Your task to perform on an android device: Search for macbook on target, select the first entry, and add it to the cart. Image 0: 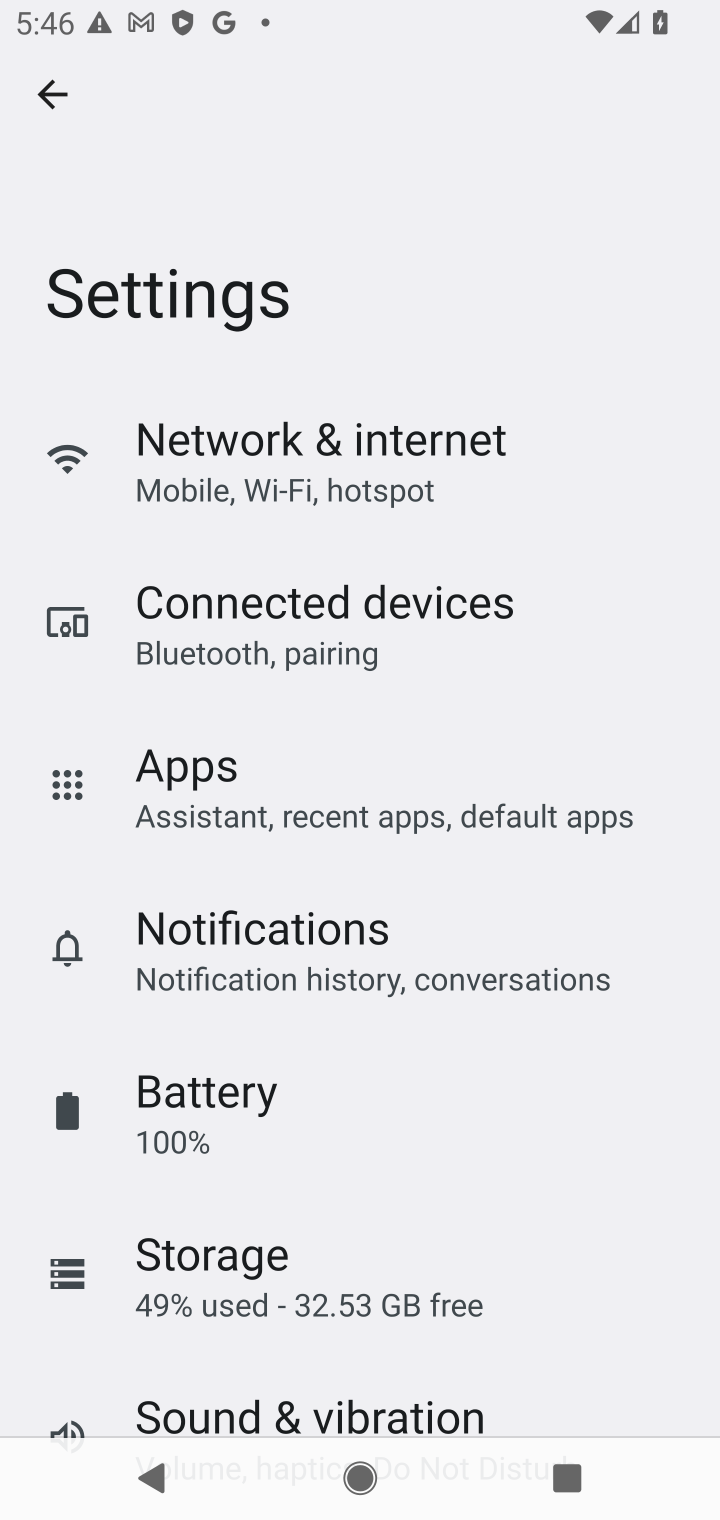
Step 0: press home button
Your task to perform on an android device: Search for macbook on target, select the first entry, and add it to the cart. Image 1: 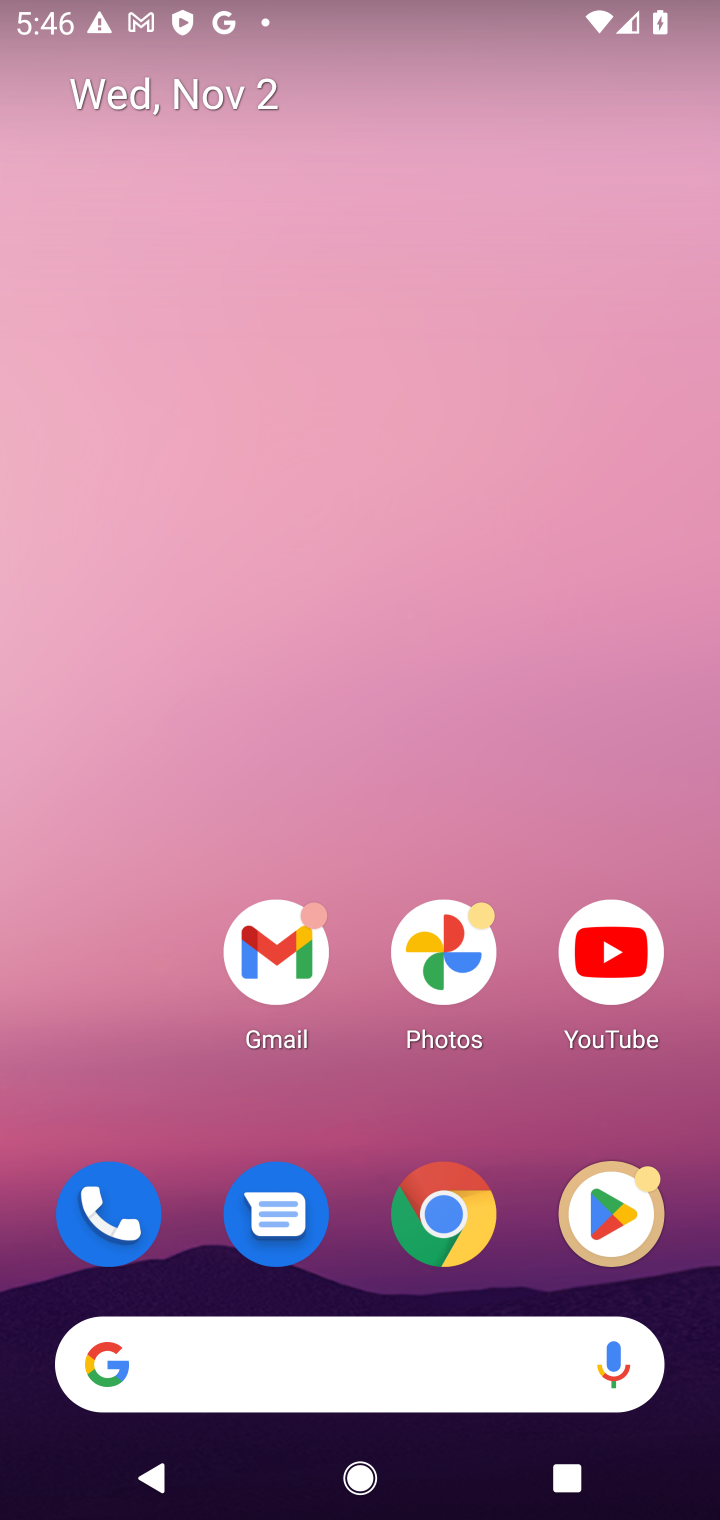
Step 1: click (448, 1219)
Your task to perform on an android device: Search for macbook on target, select the first entry, and add it to the cart. Image 2: 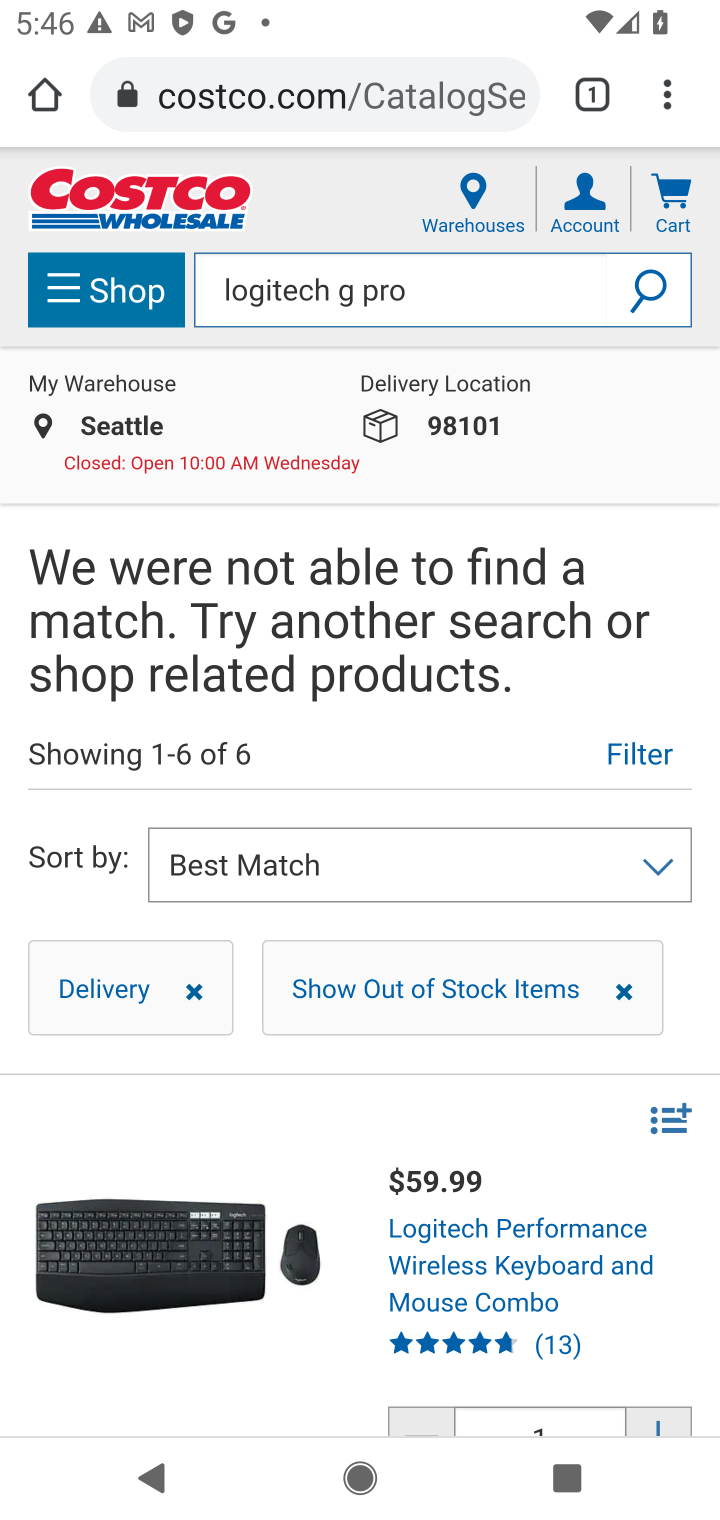
Step 2: click (336, 97)
Your task to perform on an android device: Search for macbook on target, select the first entry, and add it to the cart. Image 3: 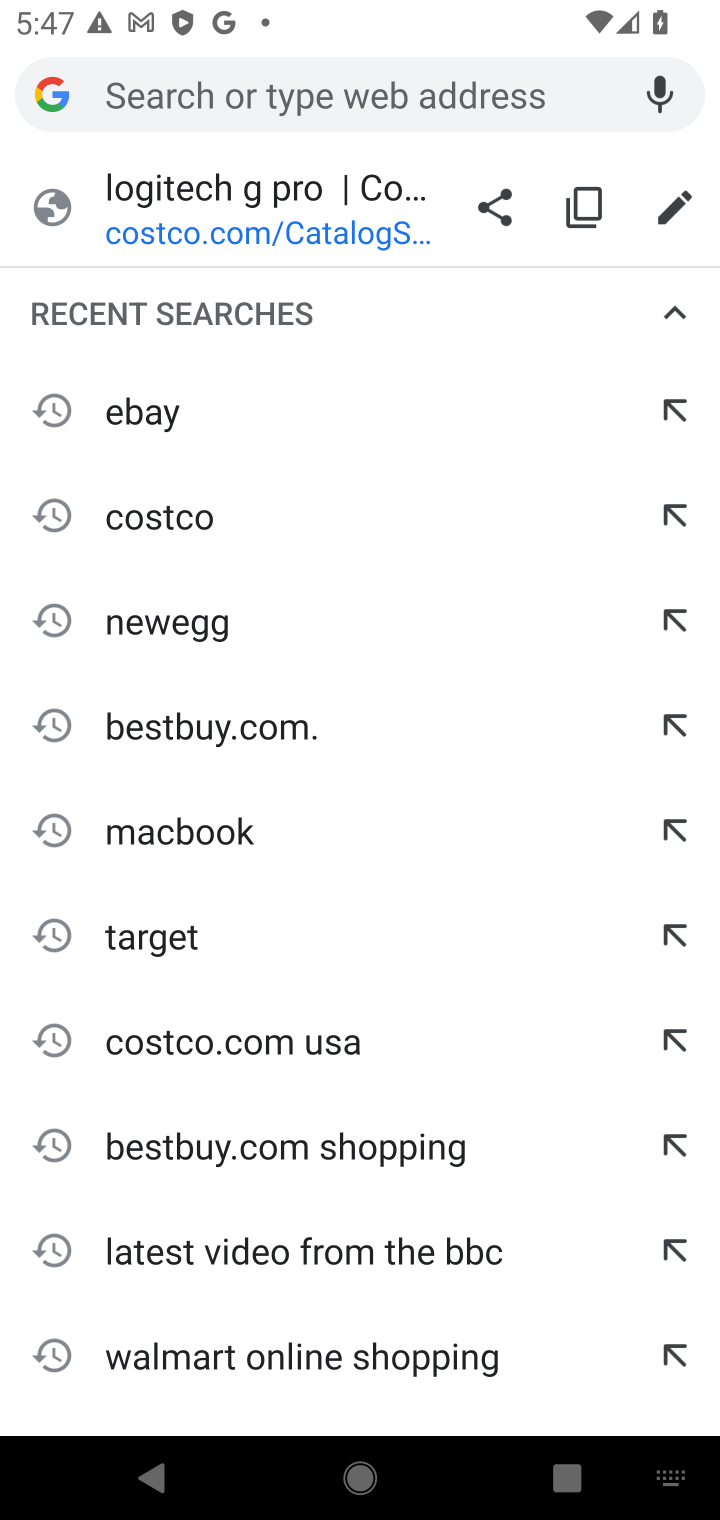
Step 3: type "target"
Your task to perform on an android device: Search for macbook on target, select the first entry, and add it to the cart. Image 4: 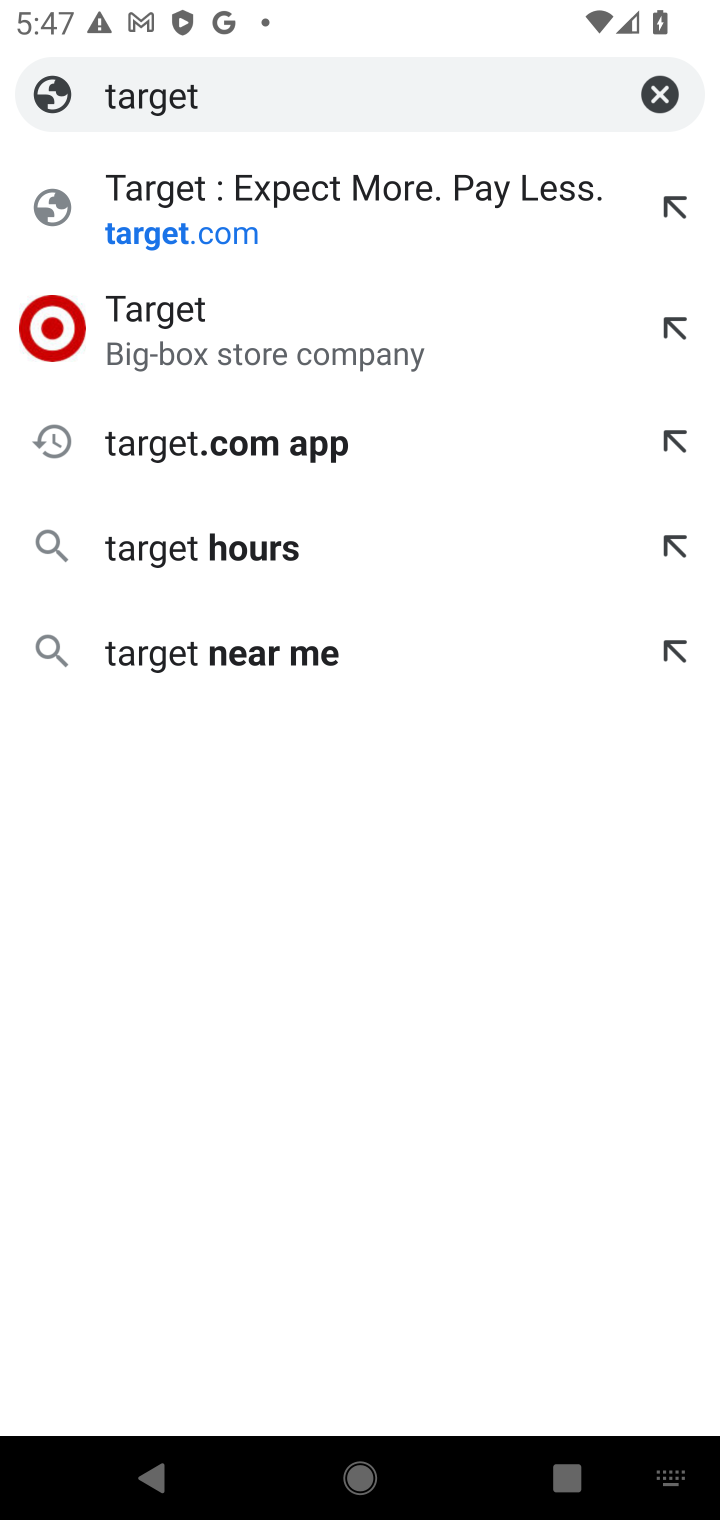
Step 4: click (172, 340)
Your task to perform on an android device: Search for macbook on target, select the first entry, and add it to the cart. Image 5: 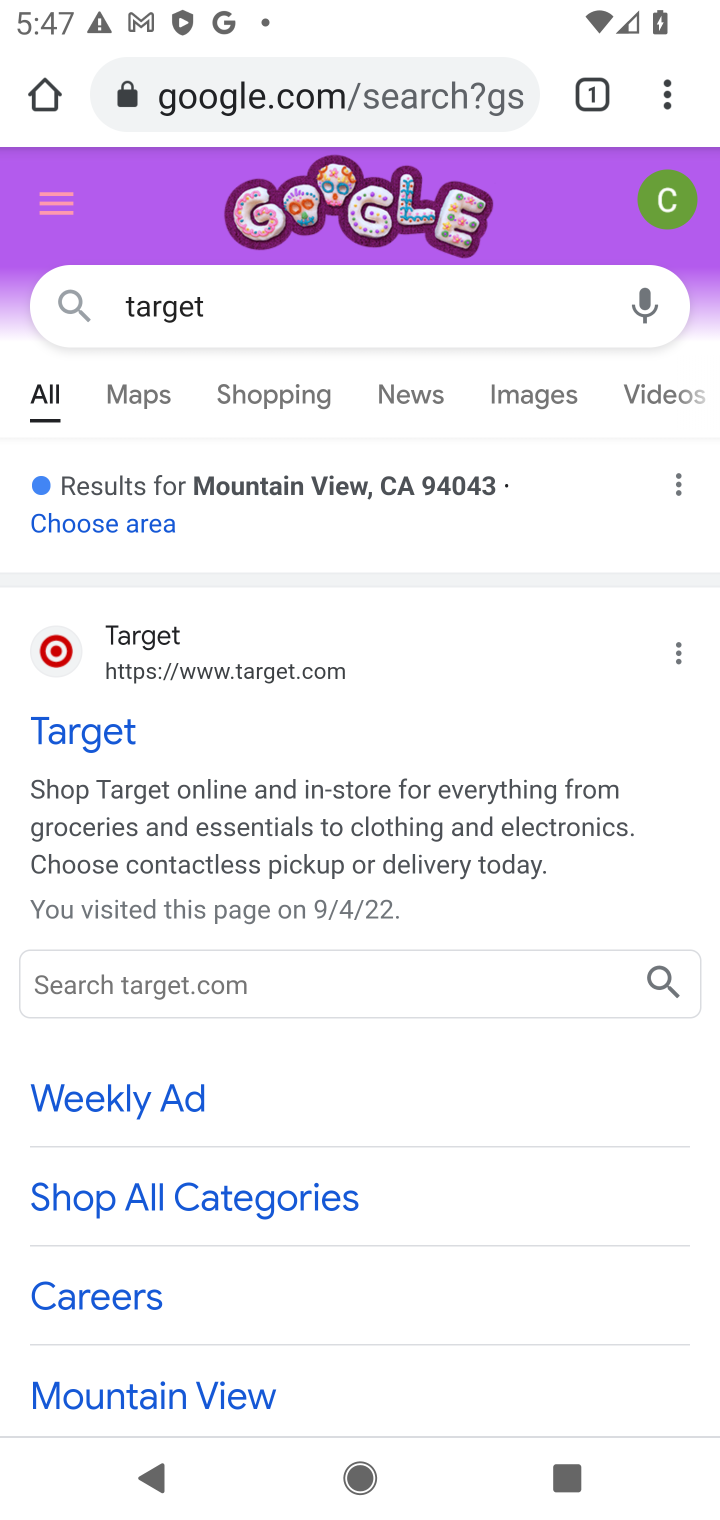
Step 5: click (157, 739)
Your task to perform on an android device: Search for macbook on target, select the first entry, and add it to the cart. Image 6: 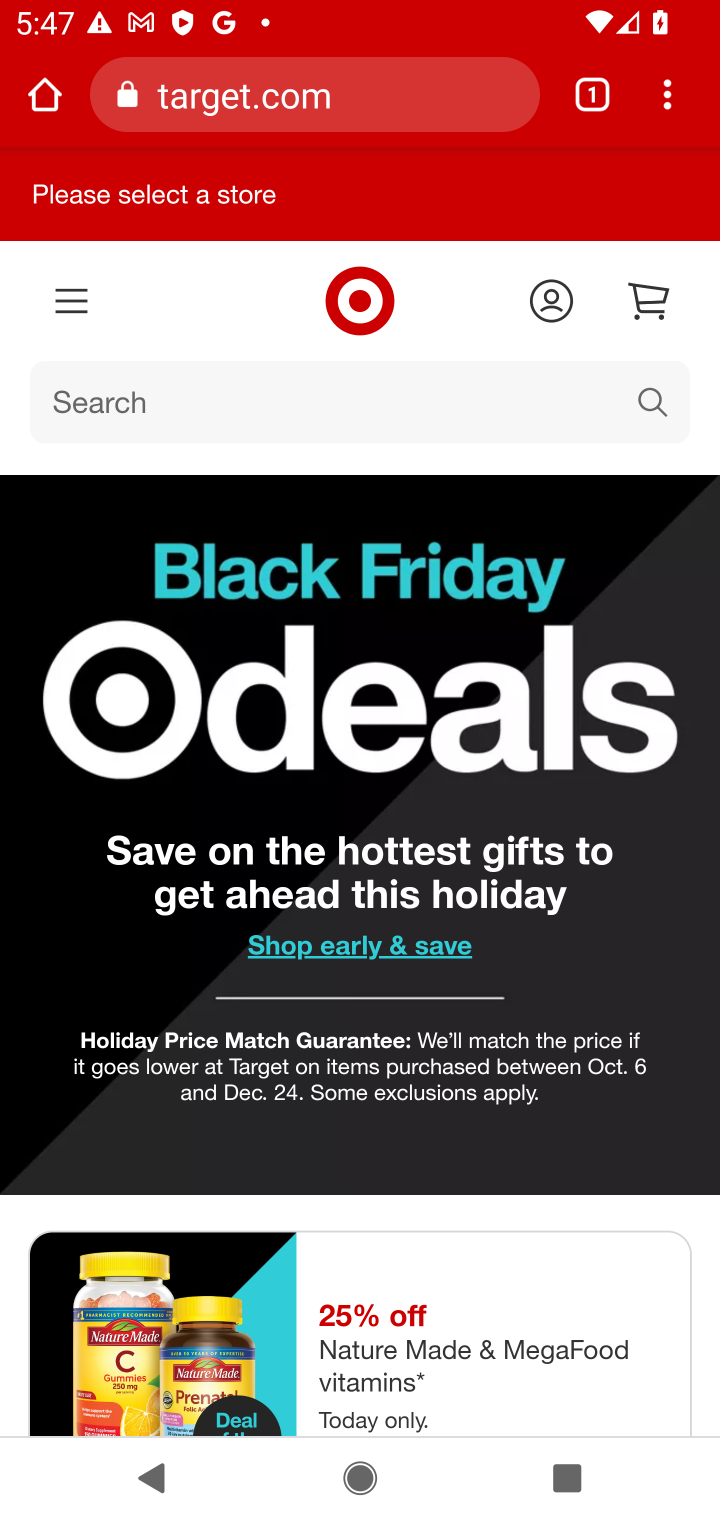
Step 6: click (393, 425)
Your task to perform on an android device: Search for macbook on target, select the first entry, and add it to the cart. Image 7: 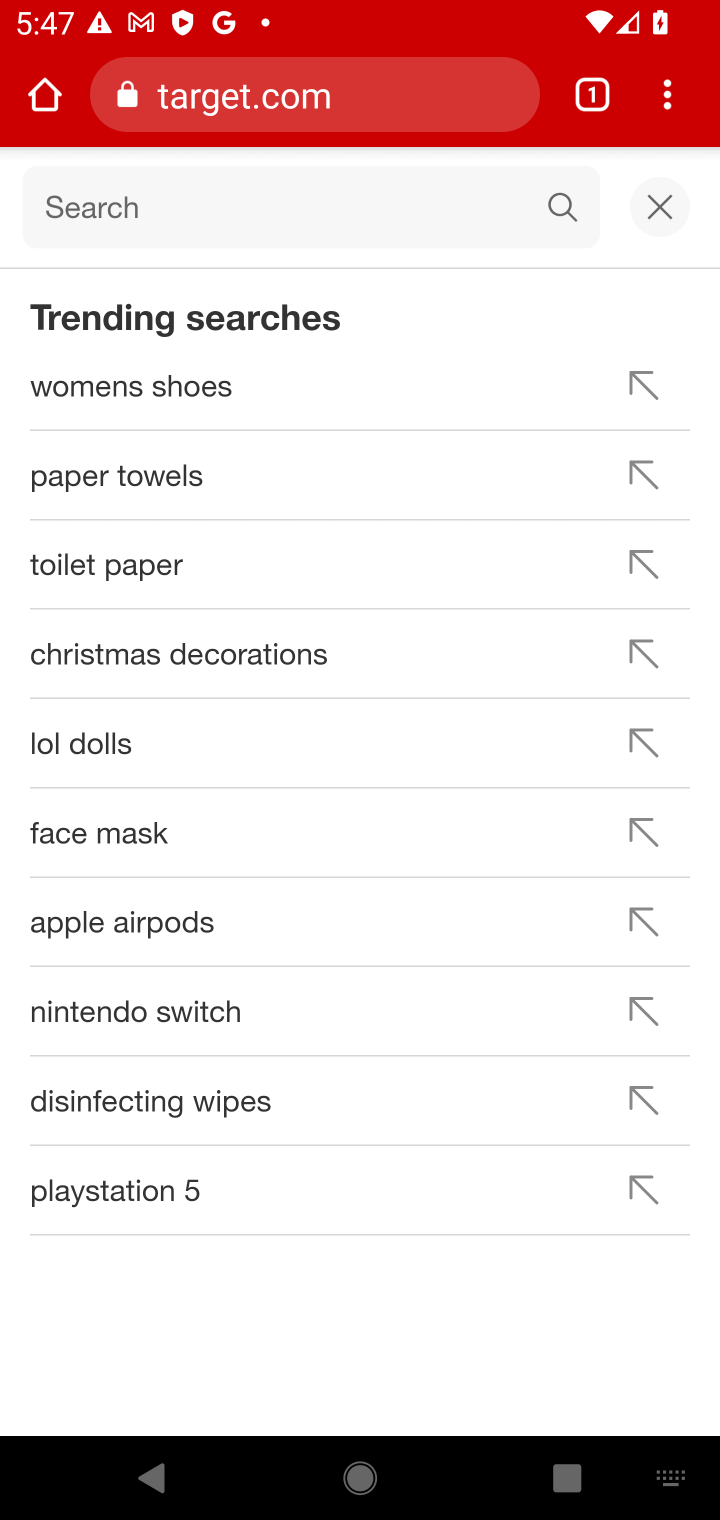
Step 7: type "macbook"
Your task to perform on an android device: Search for macbook on target, select the first entry, and add it to the cart. Image 8: 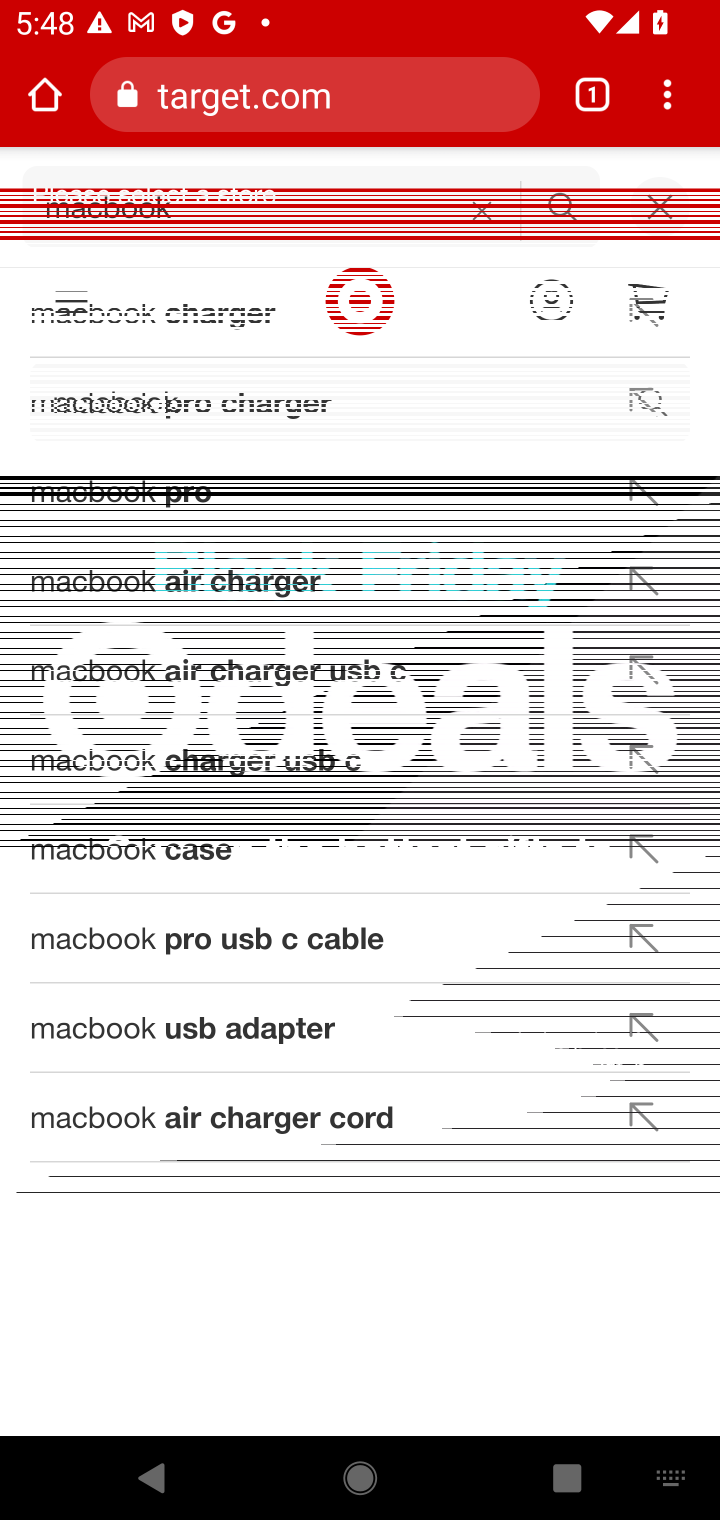
Step 8: click (558, 201)
Your task to perform on an android device: Search for macbook on target, select the first entry, and add it to the cart. Image 9: 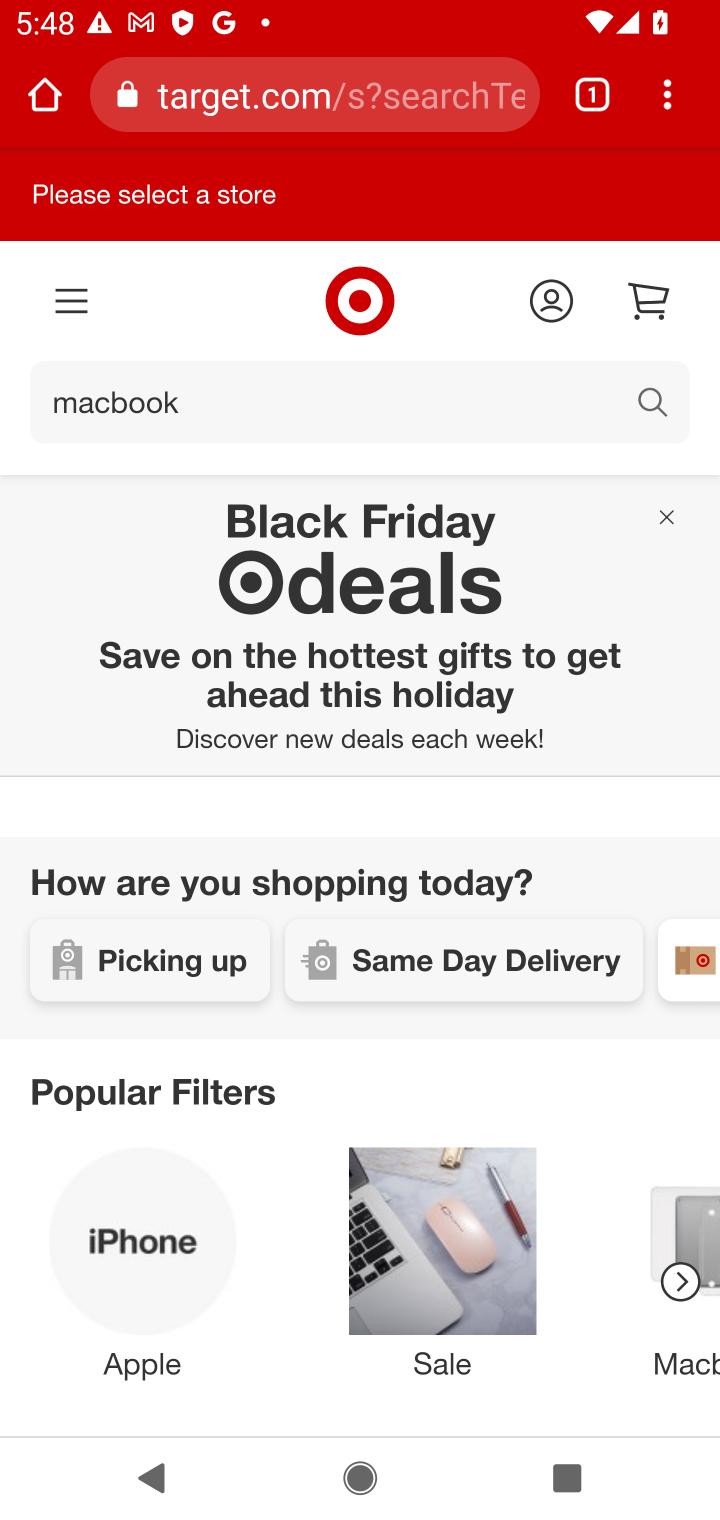
Step 9: drag from (425, 1093) to (462, 516)
Your task to perform on an android device: Search for macbook on target, select the first entry, and add it to the cart. Image 10: 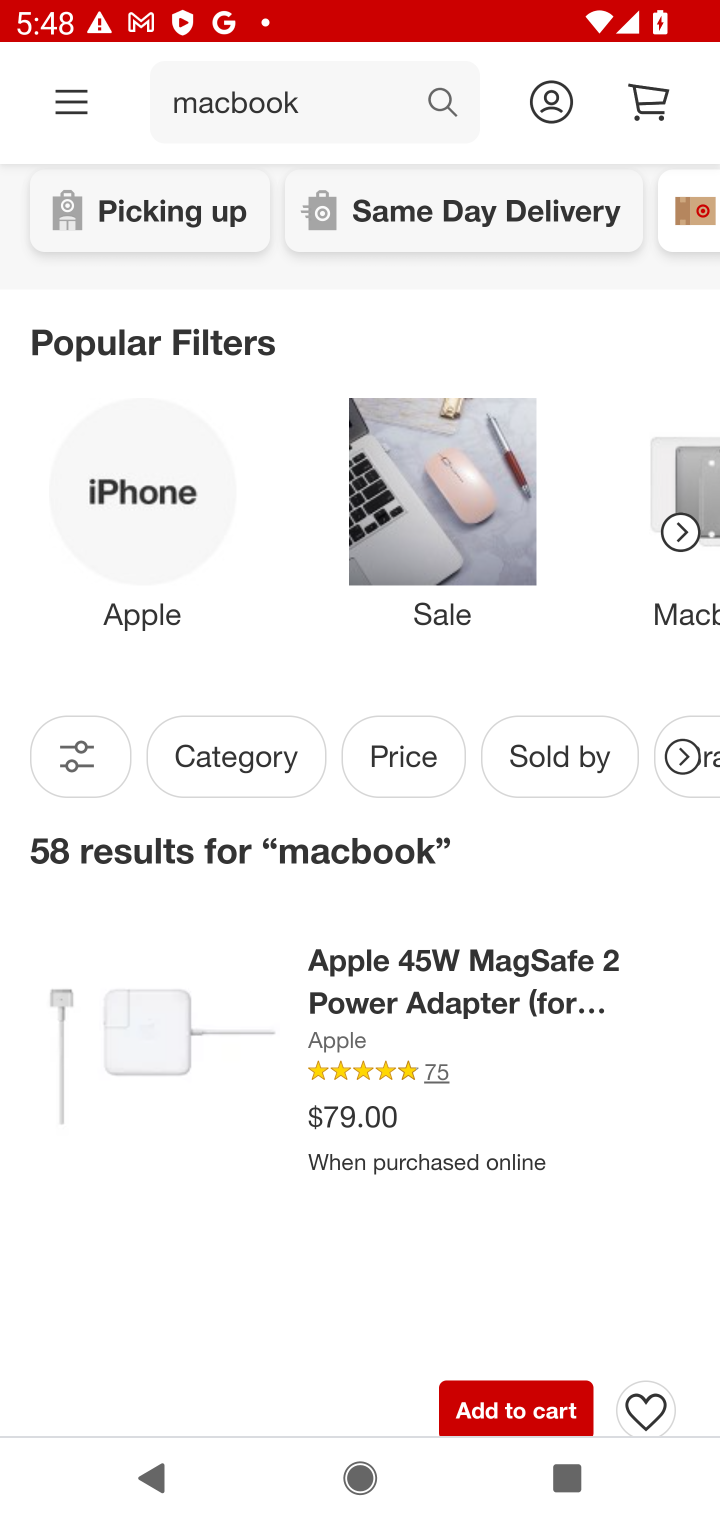
Step 10: drag from (521, 1067) to (551, 824)
Your task to perform on an android device: Search for macbook on target, select the first entry, and add it to the cart. Image 11: 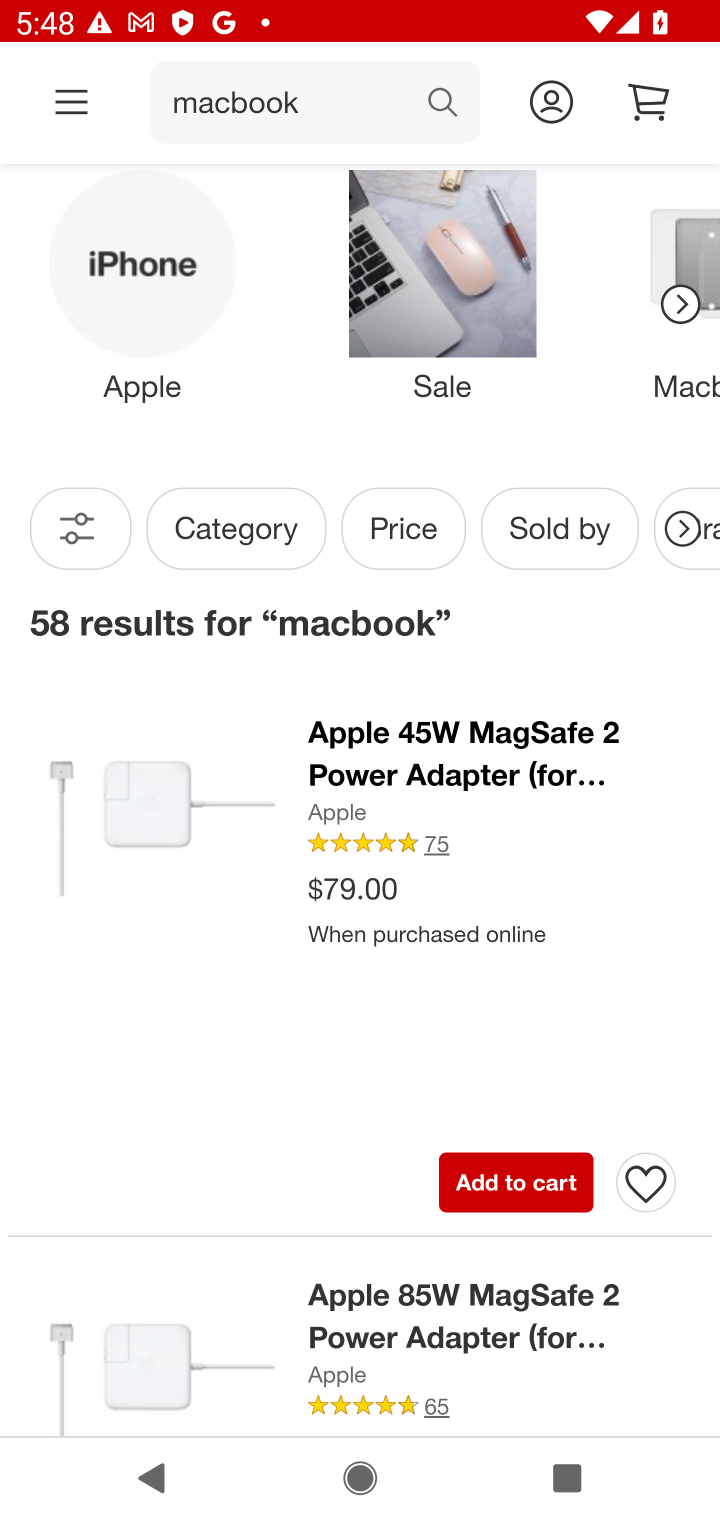
Step 11: click (501, 779)
Your task to perform on an android device: Search for macbook on target, select the first entry, and add it to the cart. Image 12: 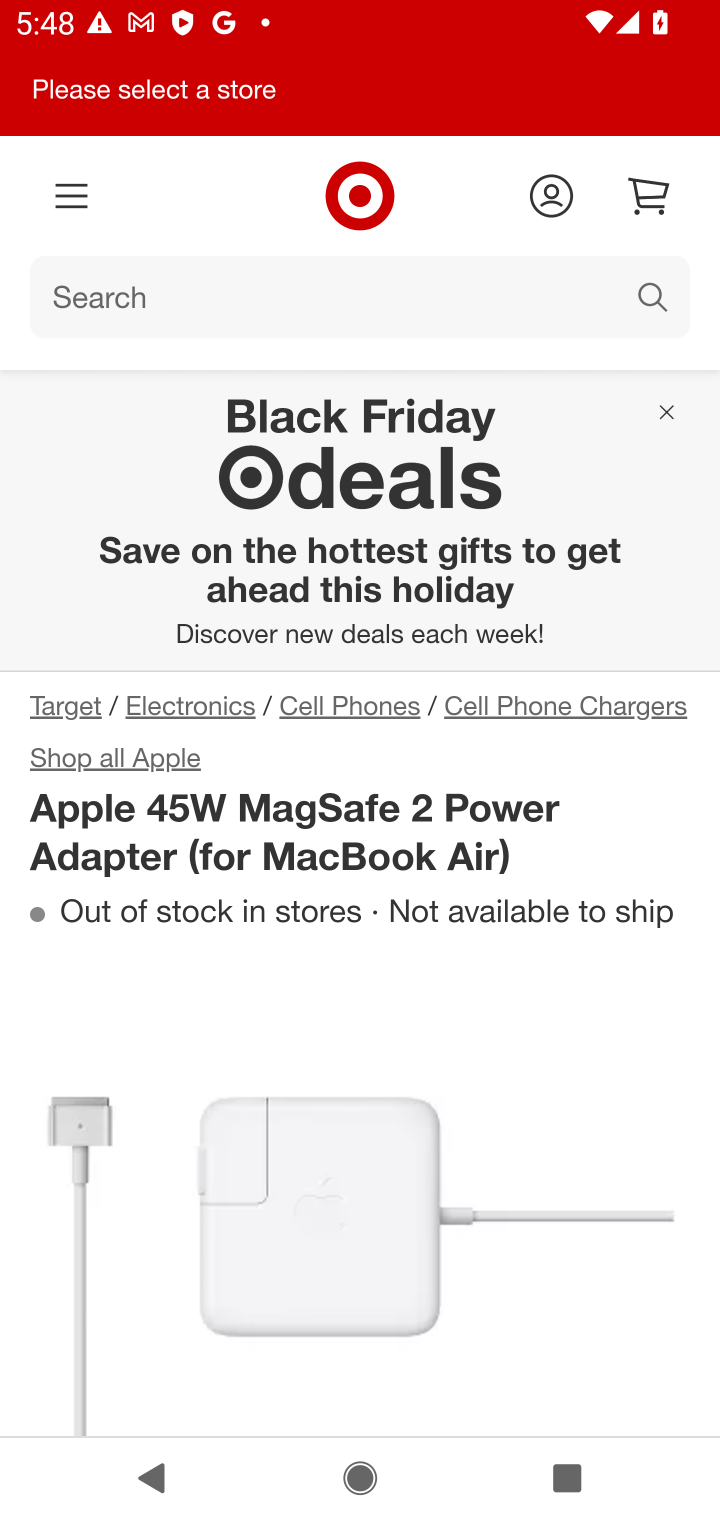
Step 12: drag from (545, 1065) to (575, 635)
Your task to perform on an android device: Search for macbook on target, select the first entry, and add it to the cart. Image 13: 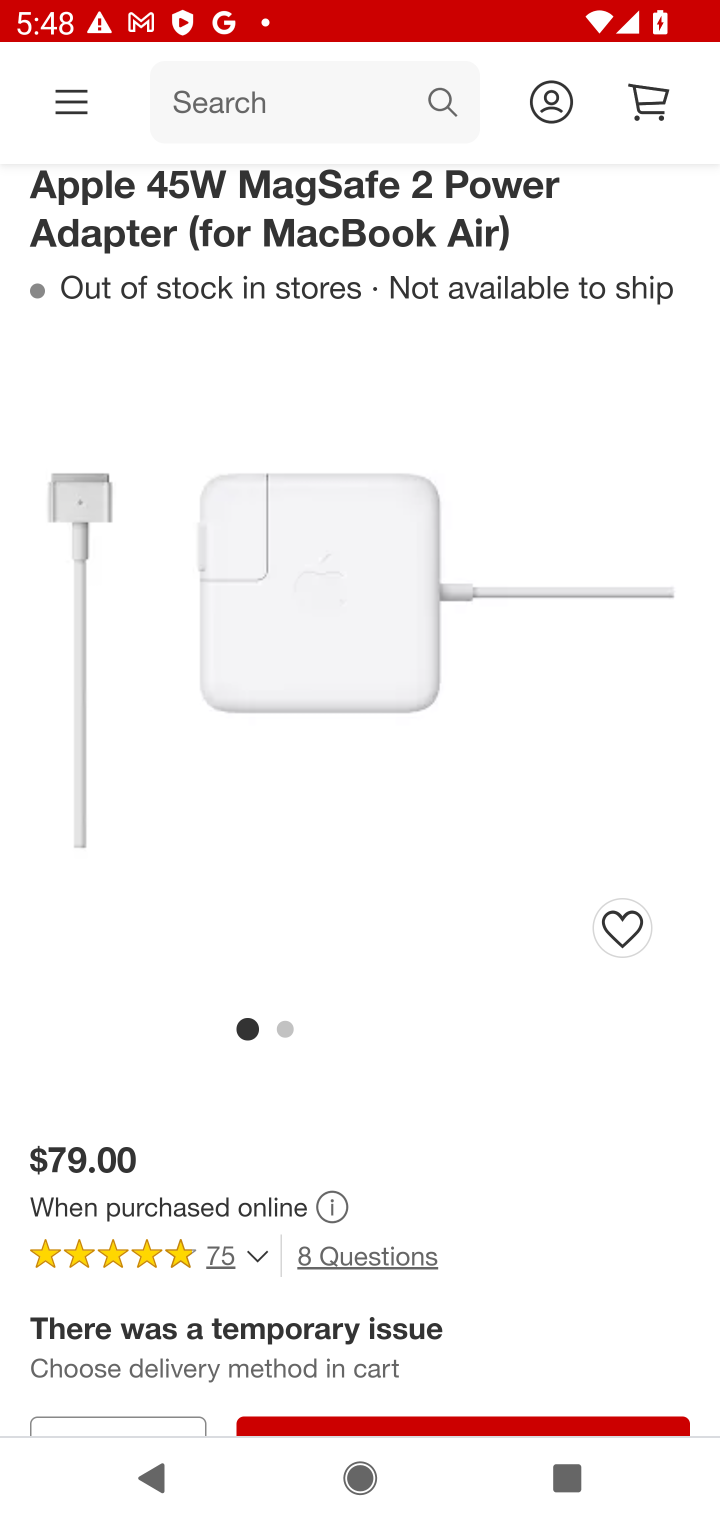
Step 13: drag from (462, 1113) to (479, 604)
Your task to perform on an android device: Search for macbook on target, select the first entry, and add it to the cart. Image 14: 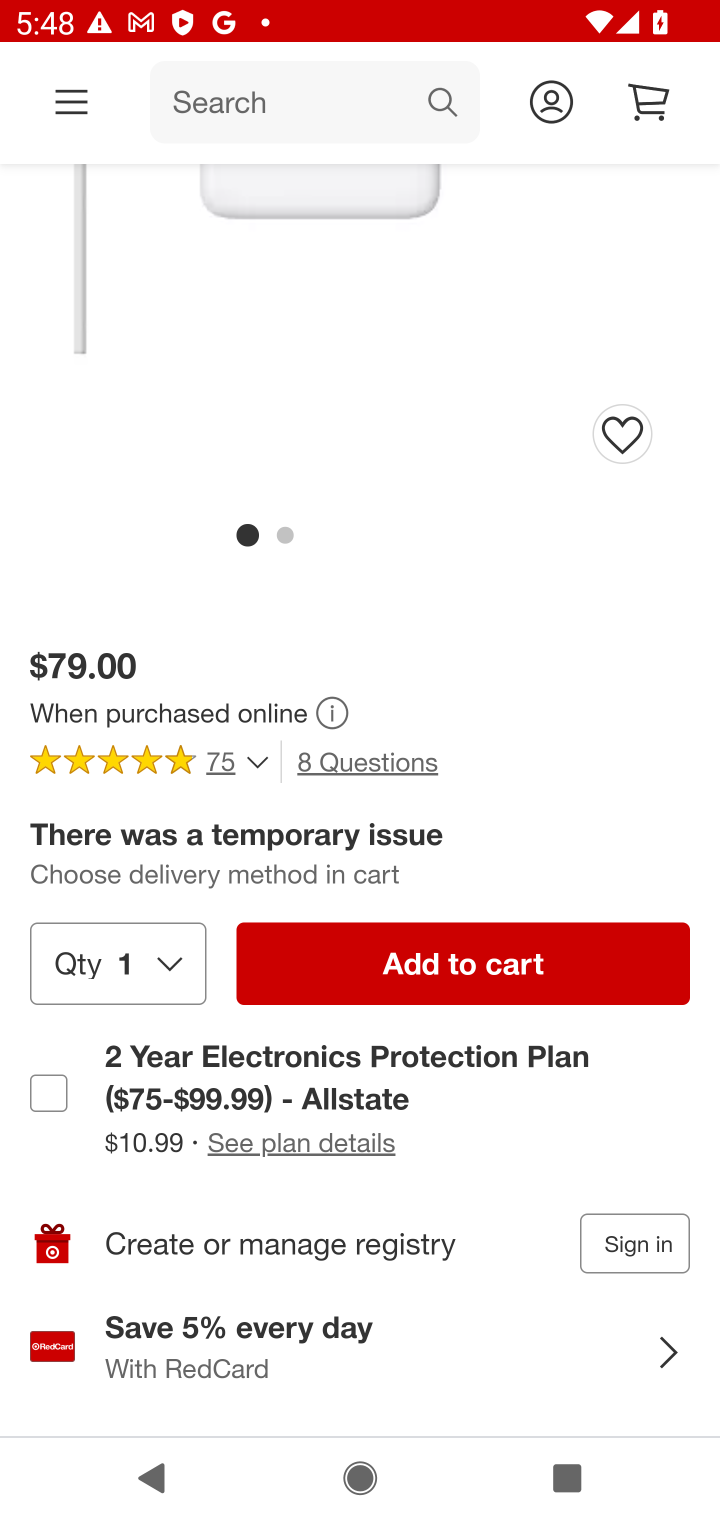
Step 14: click (463, 963)
Your task to perform on an android device: Search for macbook on target, select the first entry, and add it to the cart. Image 15: 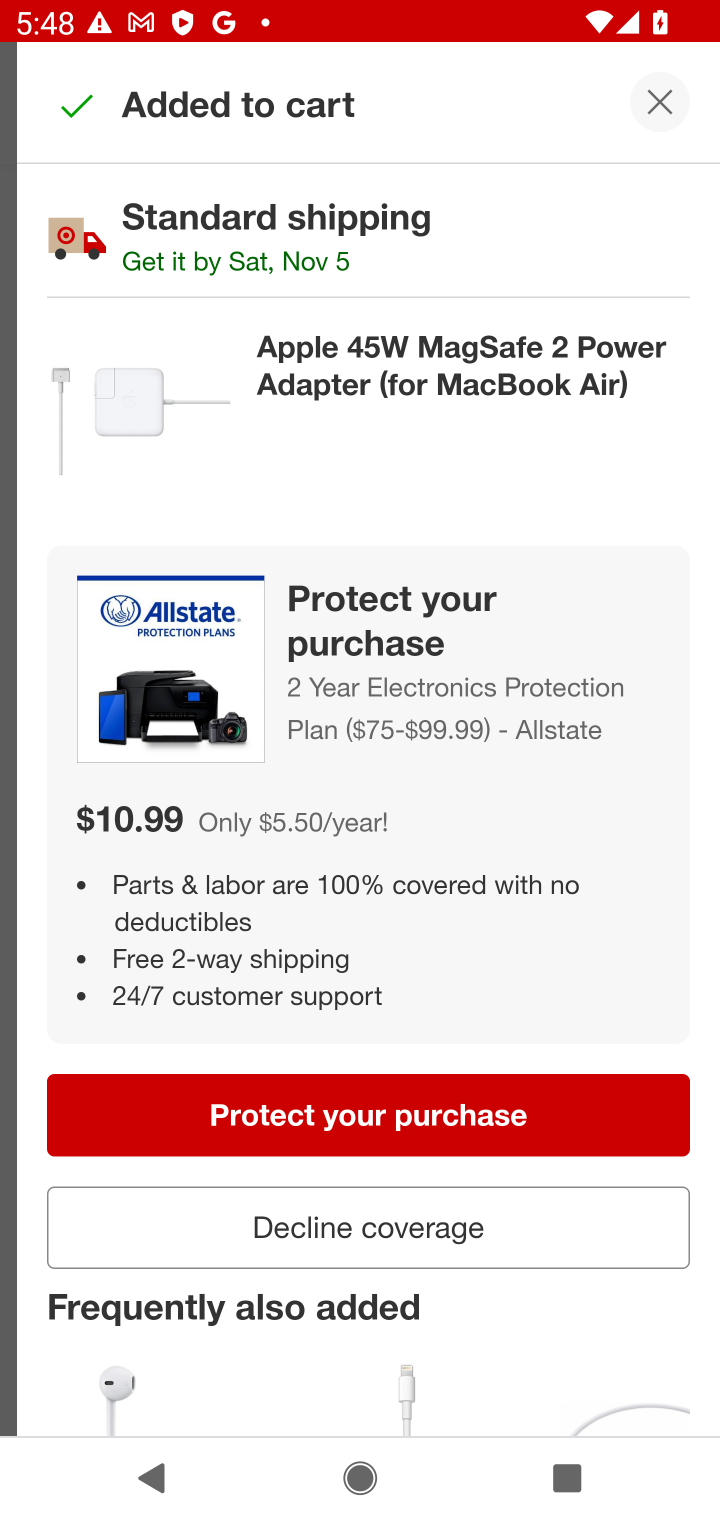
Step 15: click (396, 1233)
Your task to perform on an android device: Search for macbook on target, select the first entry, and add it to the cart. Image 16: 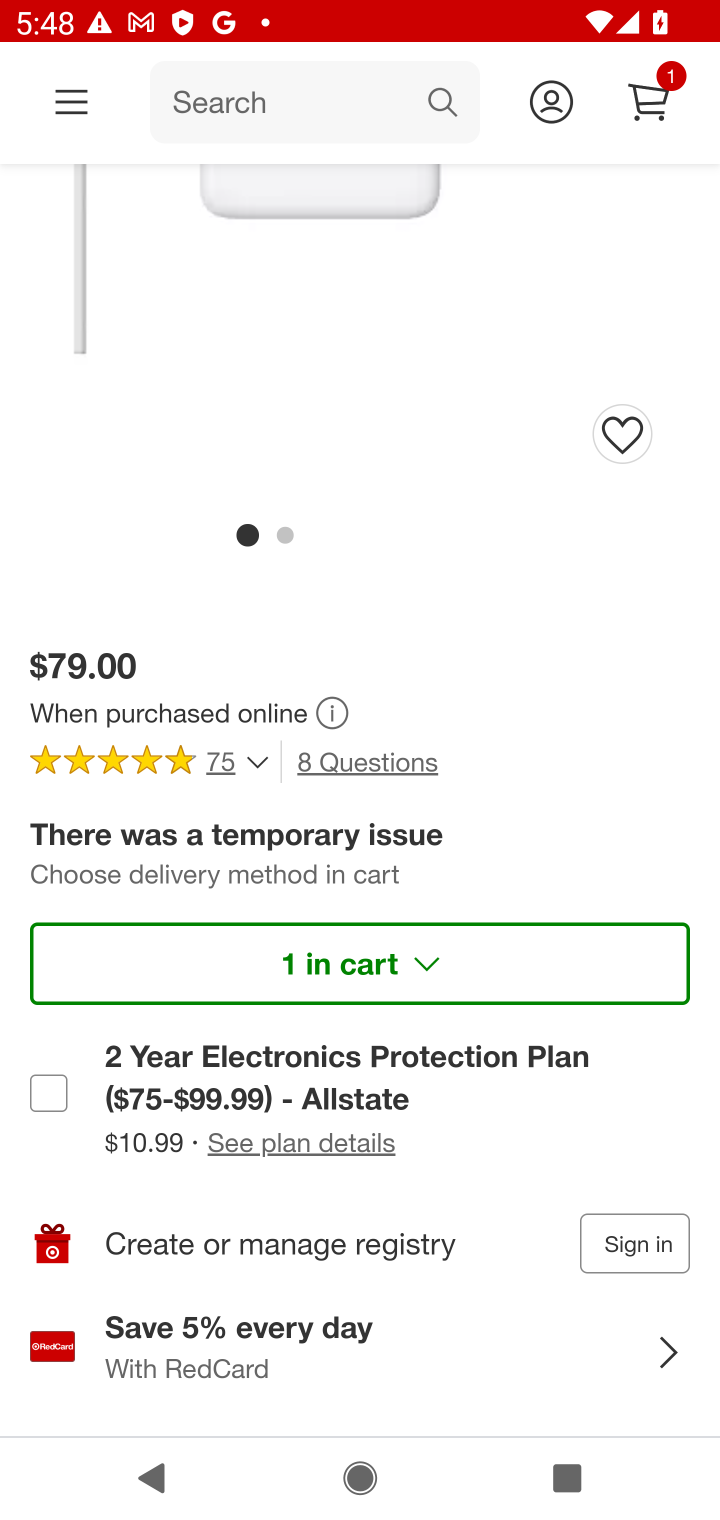
Step 16: click (660, 95)
Your task to perform on an android device: Search for macbook on target, select the first entry, and add it to the cart. Image 17: 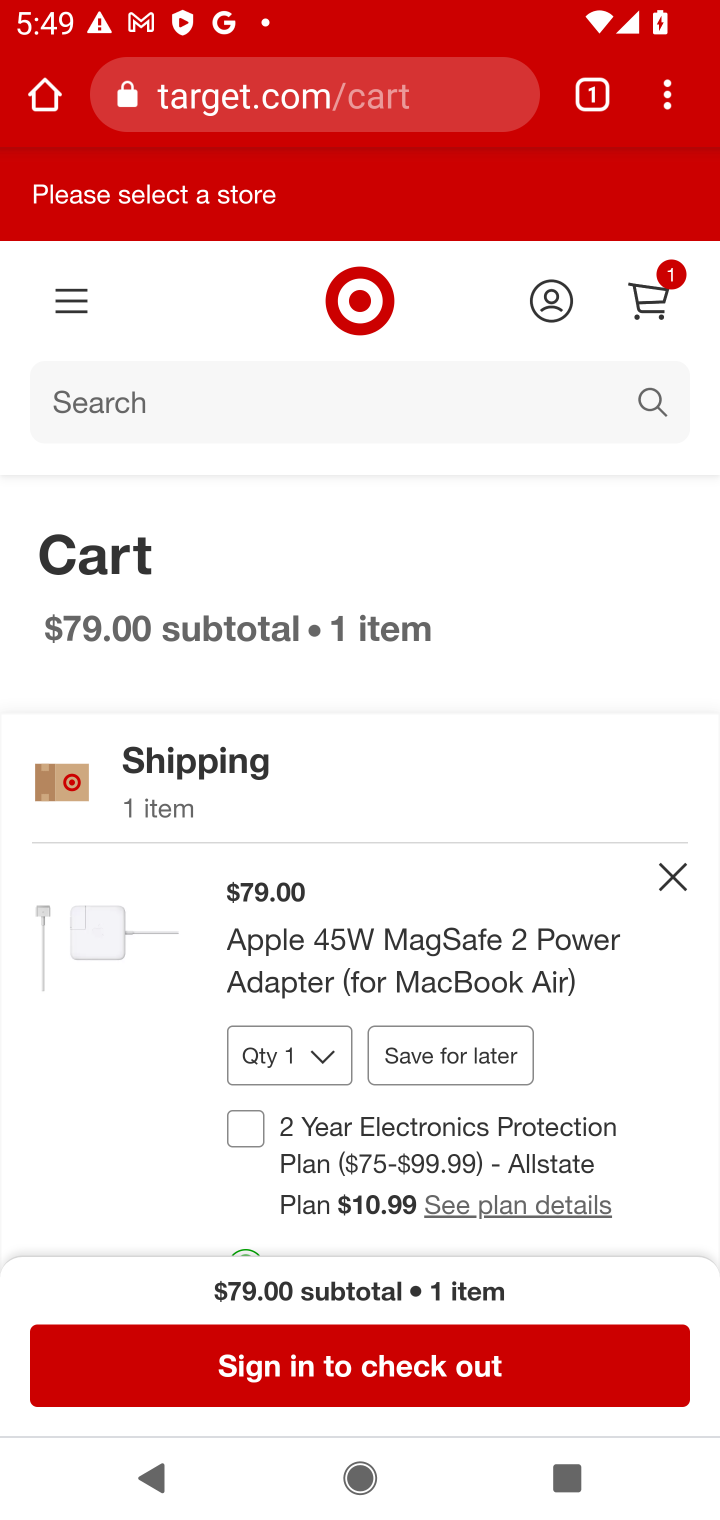
Step 17: task complete